Your task to perform on an android device: add a label to a message in the gmail app Image 0: 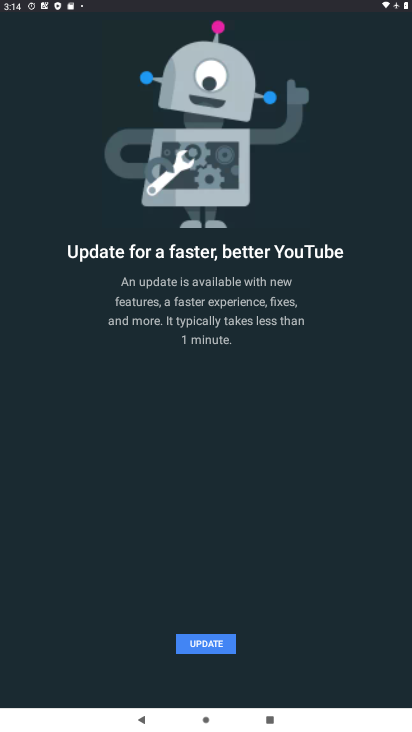
Step 0: drag from (211, 645) to (204, 449)
Your task to perform on an android device: add a label to a message in the gmail app Image 1: 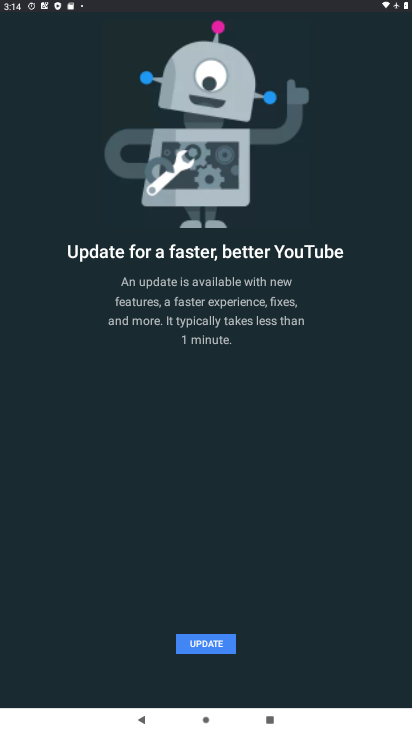
Step 1: press home button
Your task to perform on an android device: add a label to a message in the gmail app Image 2: 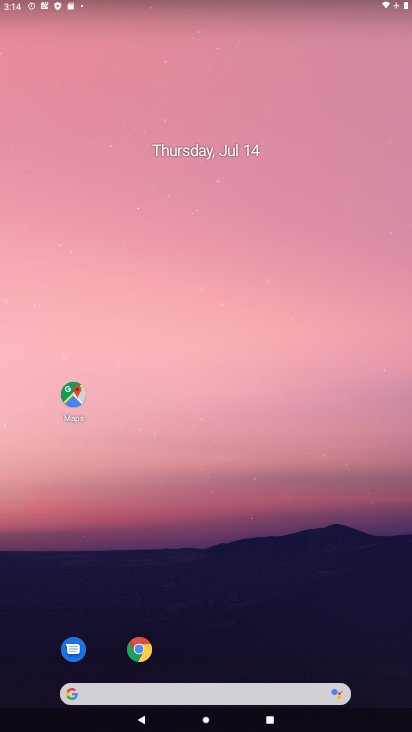
Step 2: drag from (204, 519) to (214, 24)
Your task to perform on an android device: add a label to a message in the gmail app Image 3: 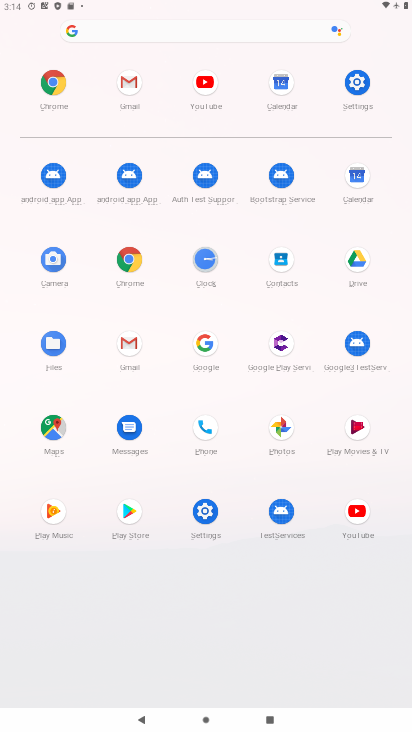
Step 3: click (131, 348)
Your task to perform on an android device: add a label to a message in the gmail app Image 4: 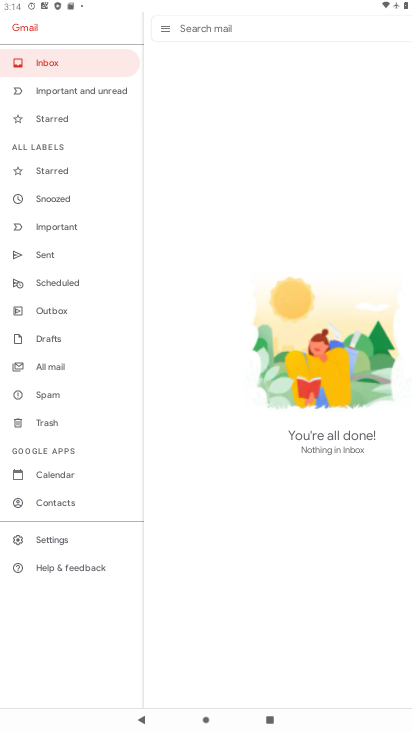
Step 4: task complete